Your task to perform on an android device: Open the stopwatch Image 0: 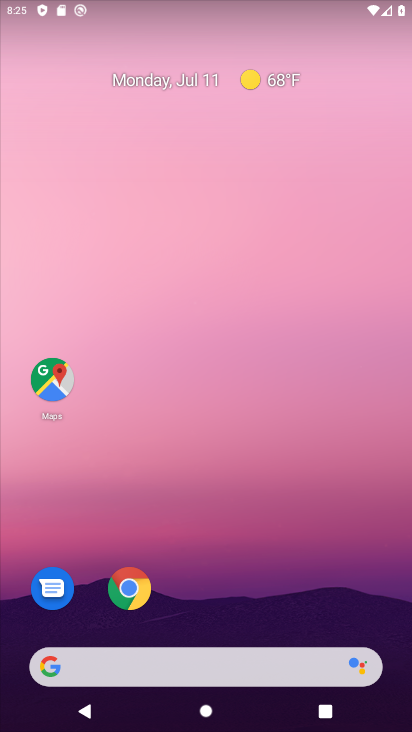
Step 0: drag from (225, 596) to (219, 9)
Your task to perform on an android device: Open the stopwatch Image 1: 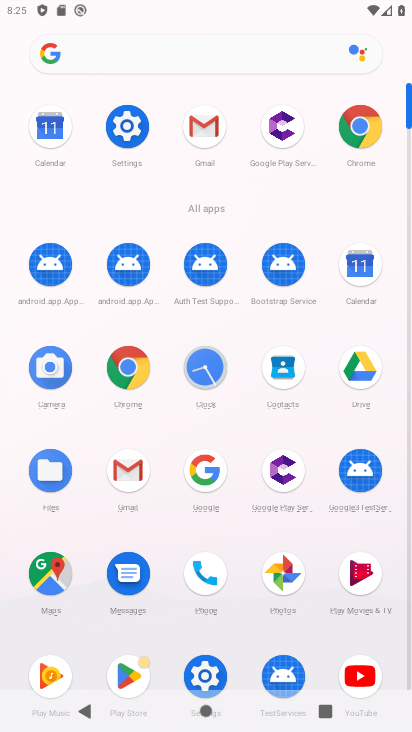
Step 1: click (213, 401)
Your task to perform on an android device: Open the stopwatch Image 2: 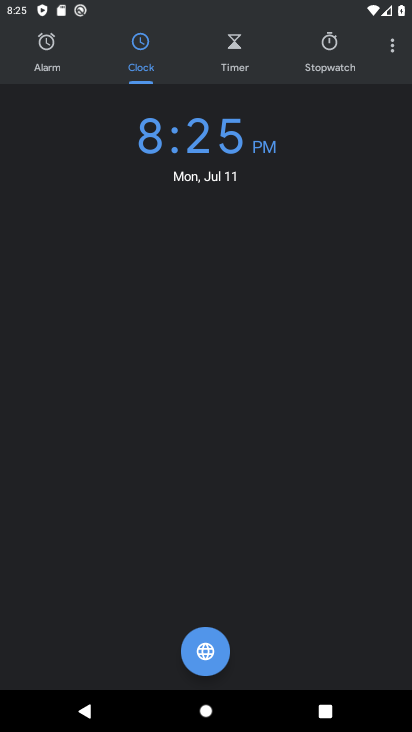
Step 2: click (318, 49)
Your task to perform on an android device: Open the stopwatch Image 3: 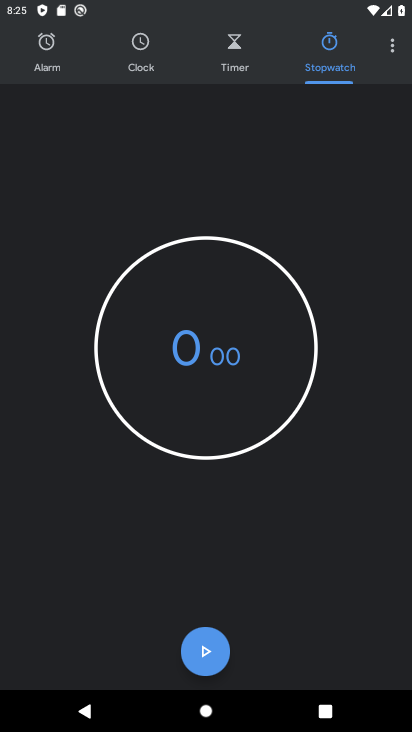
Step 3: task complete